Your task to perform on an android device: toggle show notifications on the lock screen Image 0: 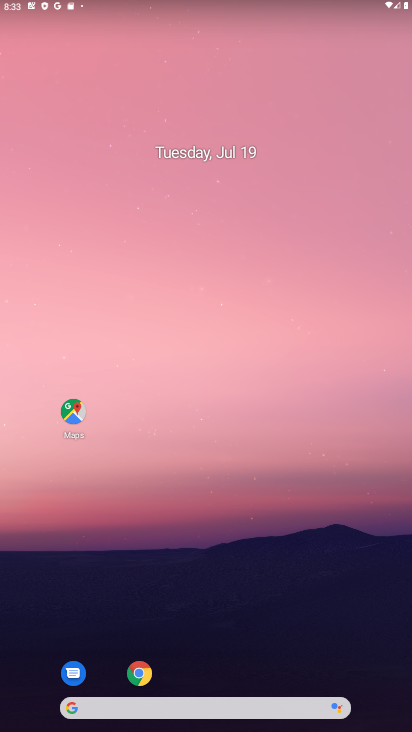
Step 0: drag from (241, 683) to (250, 127)
Your task to perform on an android device: toggle show notifications on the lock screen Image 1: 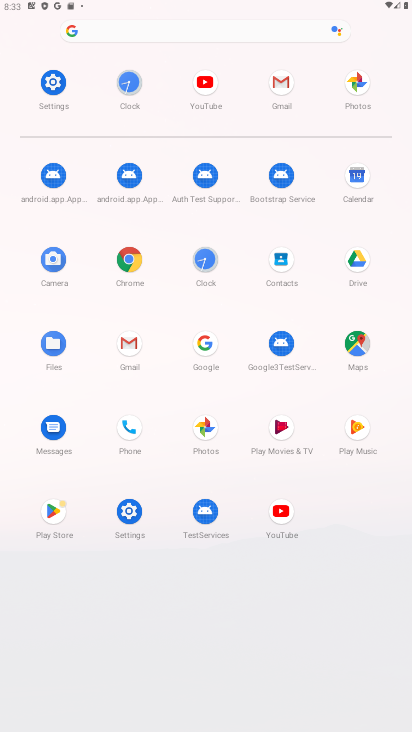
Step 1: click (39, 94)
Your task to perform on an android device: toggle show notifications on the lock screen Image 2: 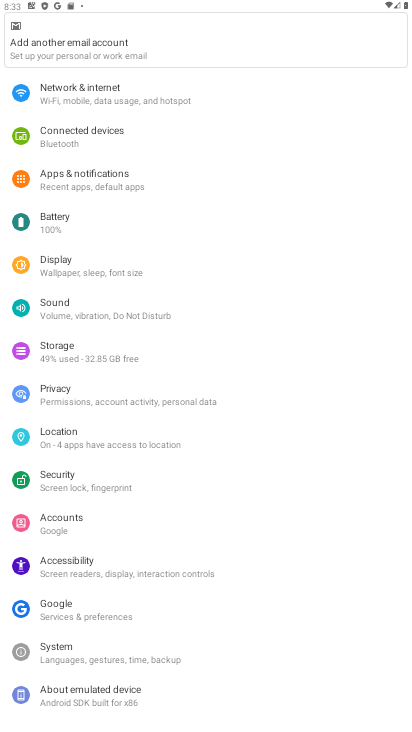
Step 2: click (92, 172)
Your task to perform on an android device: toggle show notifications on the lock screen Image 3: 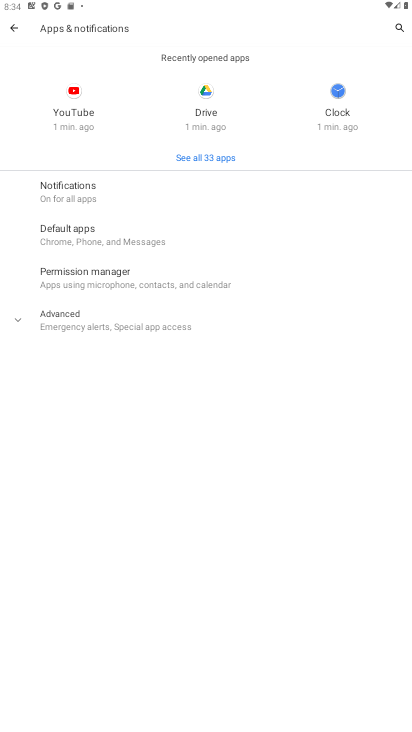
Step 3: click (151, 195)
Your task to perform on an android device: toggle show notifications on the lock screen Image 4: 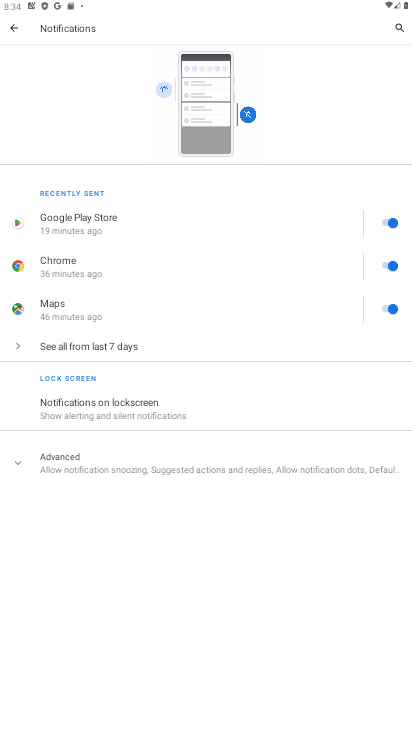
Step 4: click (58, 407)
Your task to perform on an android device: toggle show notifications on the lock screen Image 5: 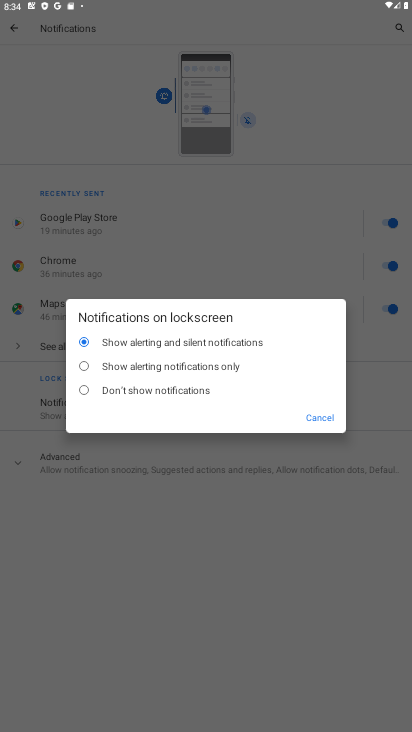
Step 5: click (140, 365)
Your task to perform on an android device: toggle show notifications on the lock screen Image 6: 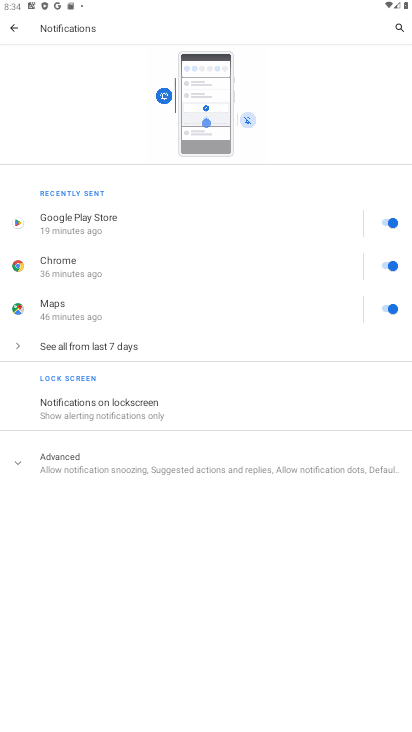
Step 6: task complete